Your task to perform on an android device: snooze an email in the gmail app Image 0: 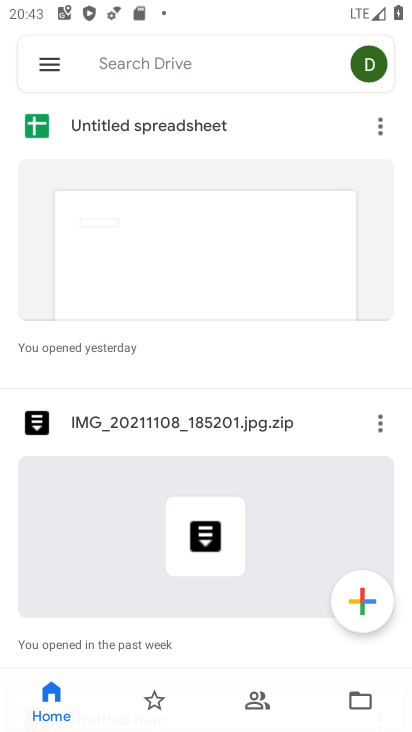
Step 0: press back button
Your task to perform on an android device: snooze an email in the gmail app Image 1: 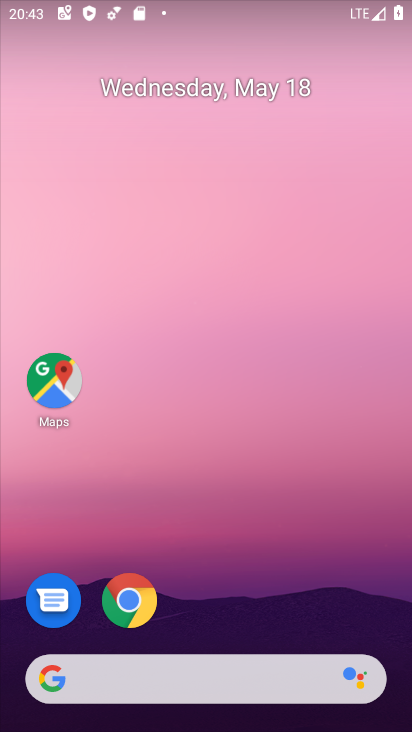
Step 1: drag from (262, 577) to (307, 62)
Your task to perform on an android device: snooze an email in the gmail app Image 2: 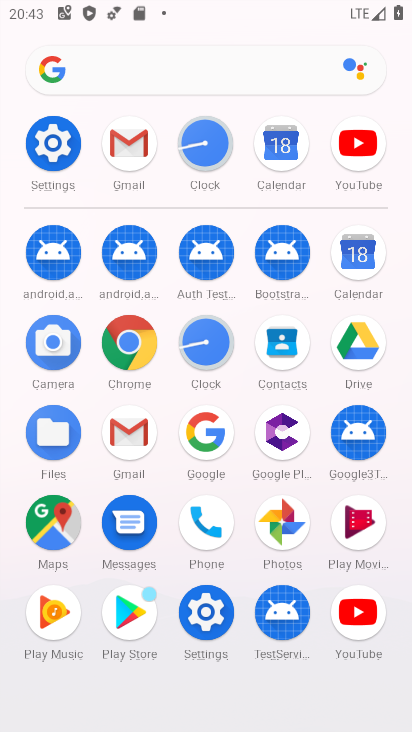
Step 2: click (119, 145)
Your task to perform on an android device: snooze an email in the gmail app Image 3: 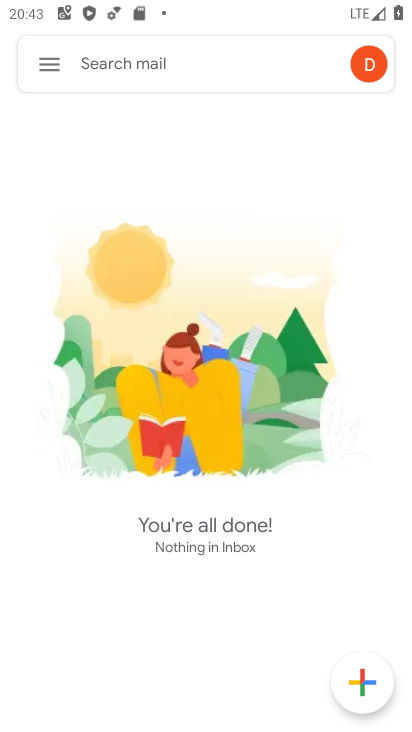
Step 3: click (54, 60)
Your task to perform on an android device: snooze an email in the gmail app Image 4: 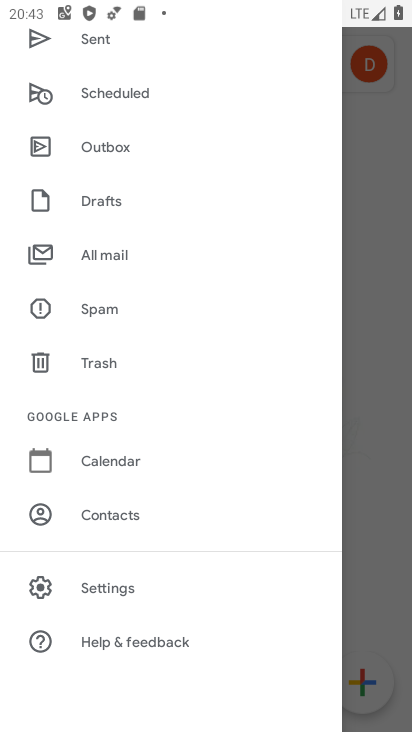
Step 4: drag from (171, 110) to (108, 506)
Your task to perform on an android device: snooze an email in the gmail app Image 5: 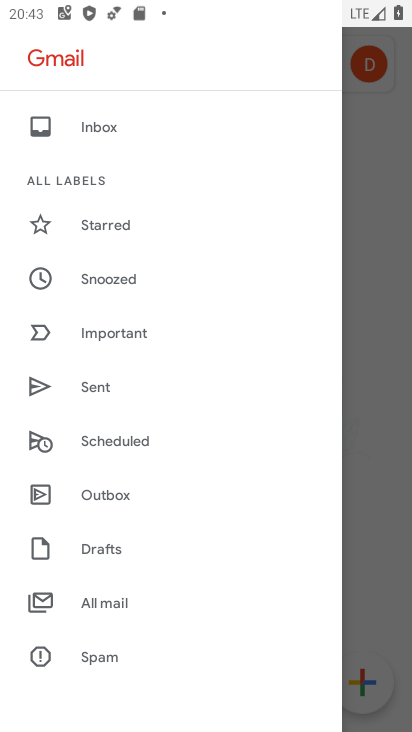
Step 5: click (104, 594)
Your task to perform on an android device: snooze an email in the gmail app Image 6: 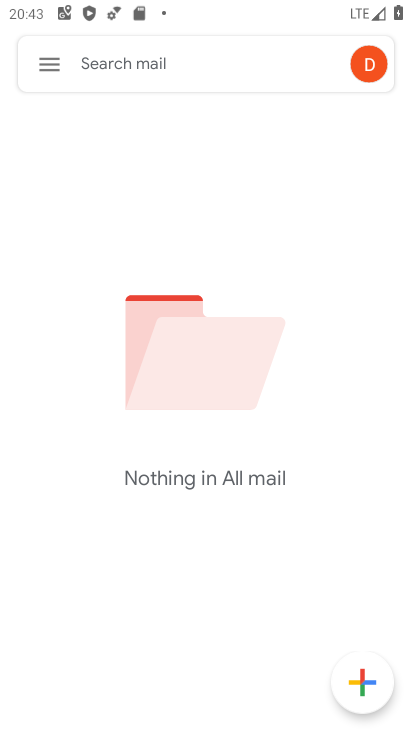
Step 6: task complete